Your task to perform on an android device: Go to Google Image 0: 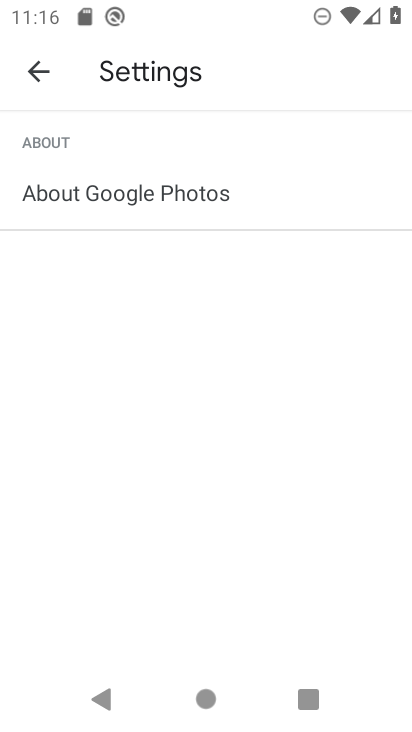
Step 0: press home button
Your task to perform on an android device: Go to Google Image 1: 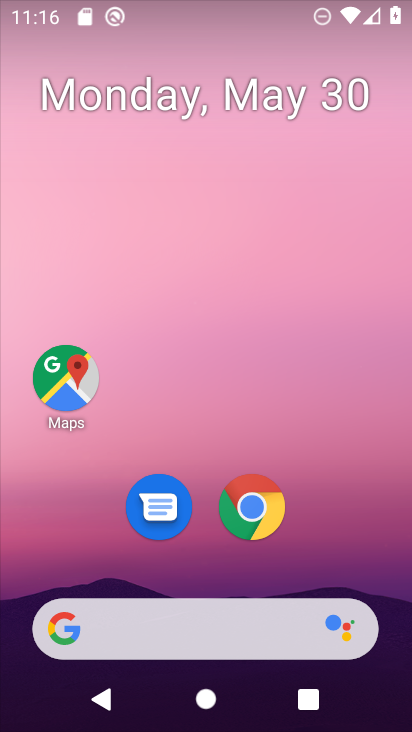
Step 1: drag from (394, 623) to (250, 26)
Your task to perform on an android device: Go to Google Image 2: 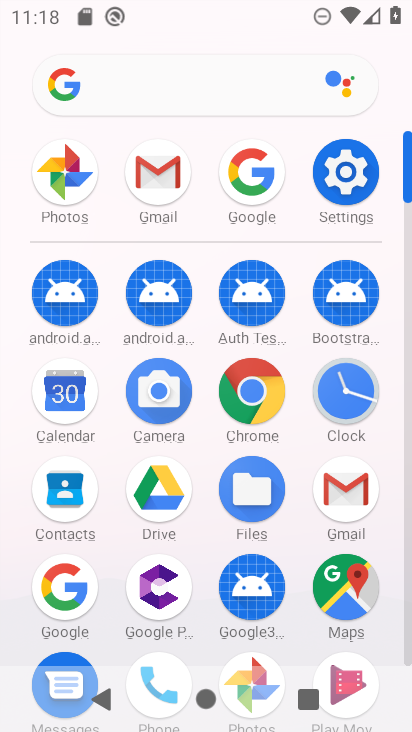
Step 2: click (76, 588)
Your task to perform on an android device: Go to Google Image 3: 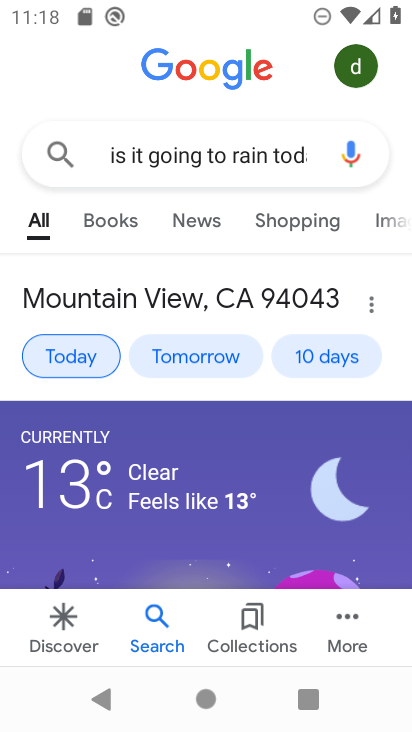
Step 3: task complete